Your task to perform on an android device: star an email in the gmail app Image 0: 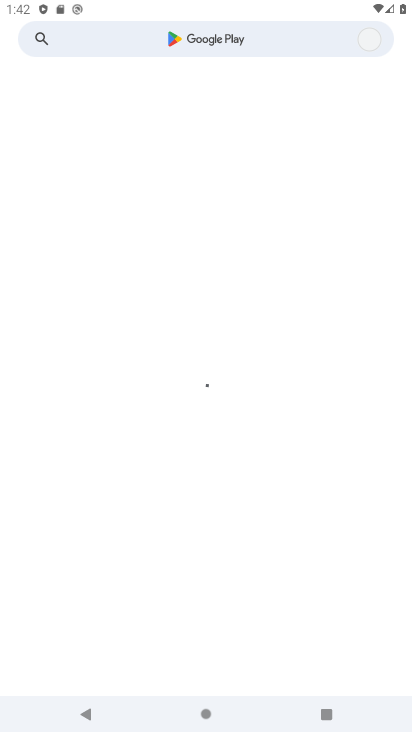
Step 0: press home button
Your task to perform on an android device: star an email in the gmail app Image 1: 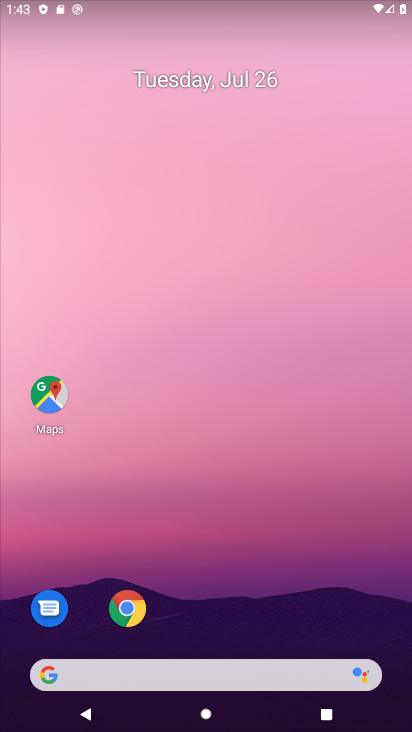
Step 1: drag from (245, 615) to (122, 6)
Your task to perform on an android device: star an email in the gmail app Image 2: 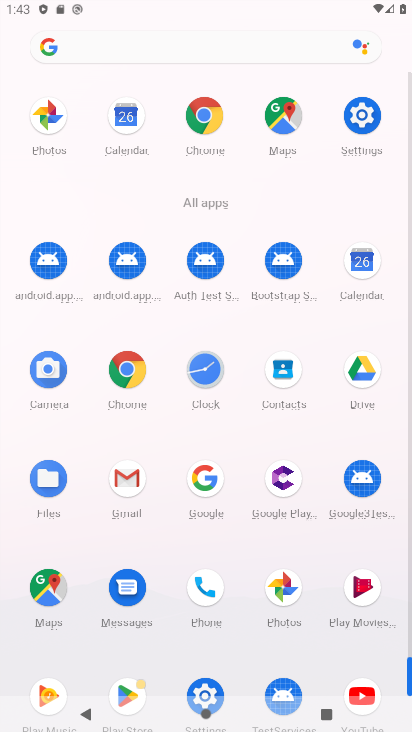
Step 2: click (132, 488)
Your task to perform on an android device: star an email in the gmail app Image 3: 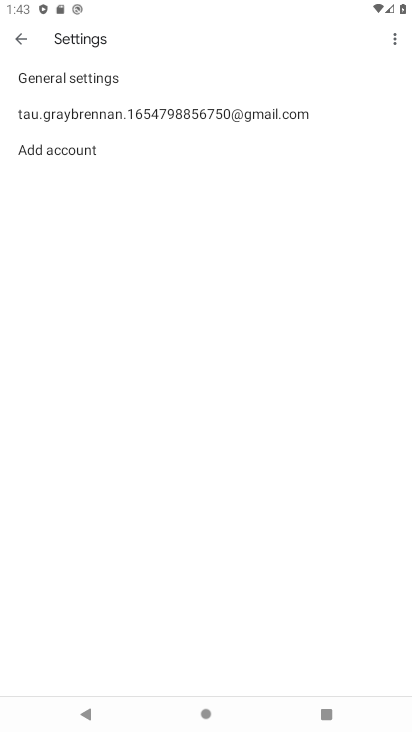
Step 3: click (21, 35)
Your task to perform on an android device: star an email in the gmail app Image 4: 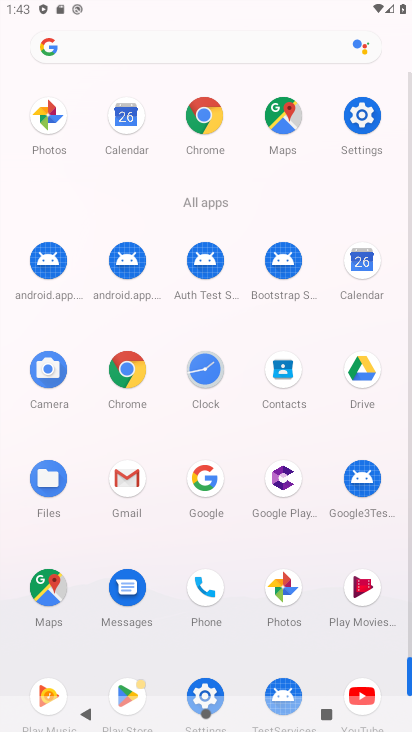
Step 4: click (108, 500)
Your task to perform on an android device: star an email in the gmail app Image 5: 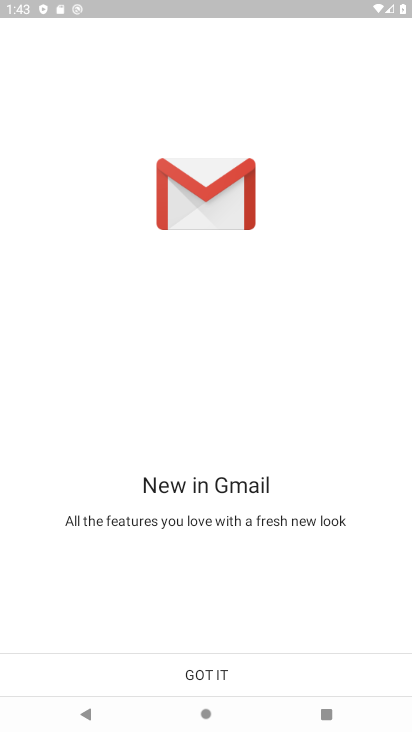
Step 5: click (195, 685)
Your task to perform on an android device: star an email in the gmail app Image 6: 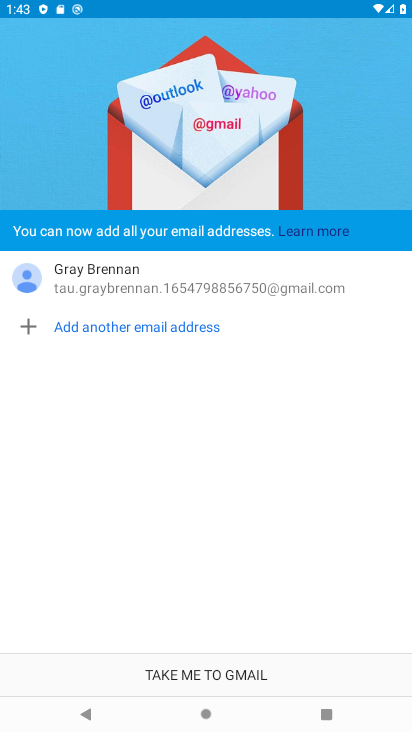
Step 6: click (218, 670)
Your task to perform on an android device: star an email in the gmail app Image 7: 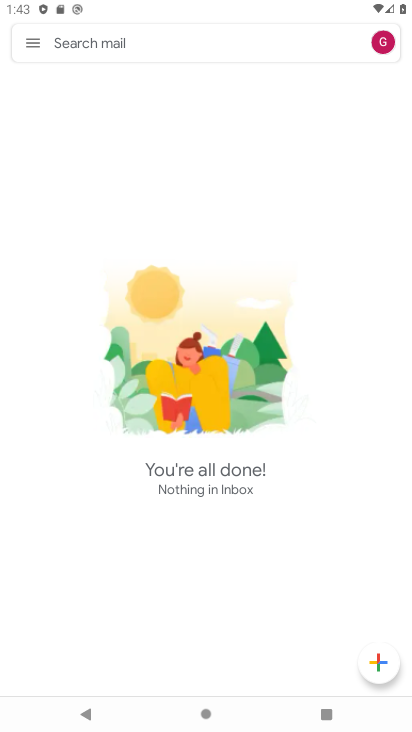
Step 7: click (30, 34)
Your task to perform on an android device: star an email in the gmail app Image 8: 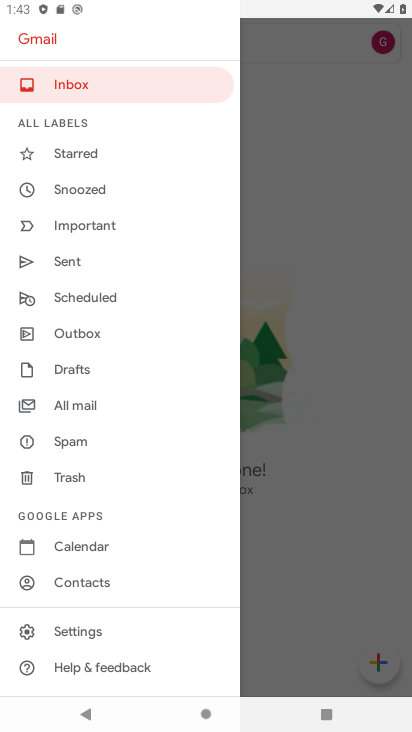
Step 8: click (65, 415)
Your task to perform on an android device: star an email in the gmail app Image 9: 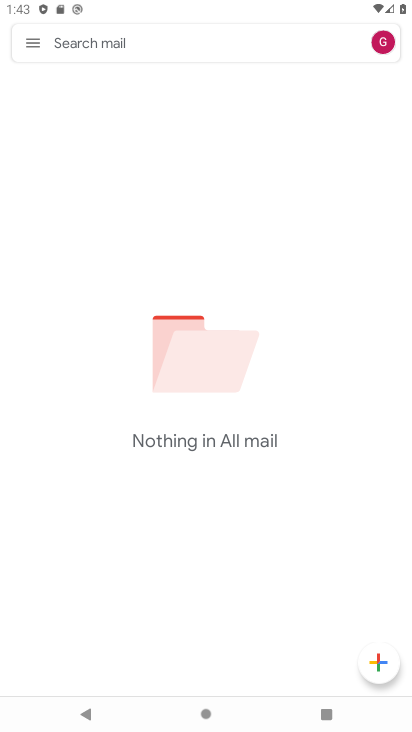
Step 9: task complete